Your task to perform on an android device: toggle javascript in the chrome app Image 0: 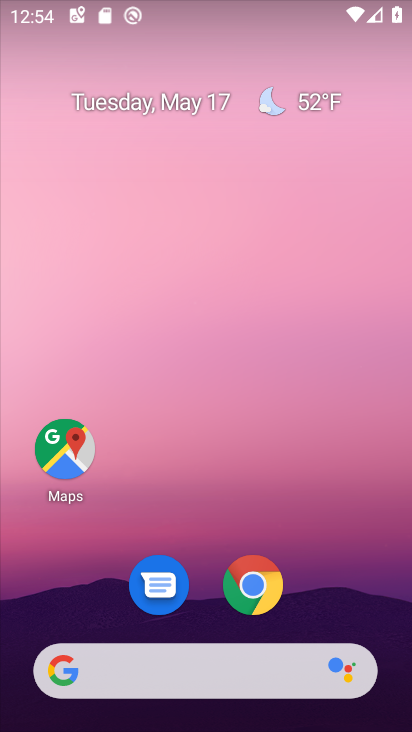
Step 0: click (256, 583)
Your task to perform on an android device: toggle javascript in the chrome app Image 1: 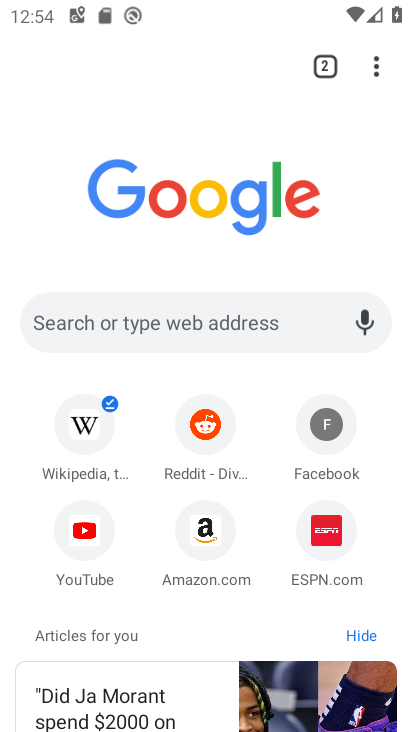
Step 1: click (374, 71)
Your task to perform on an android device: toggle javascript in the chrome app Image 2: 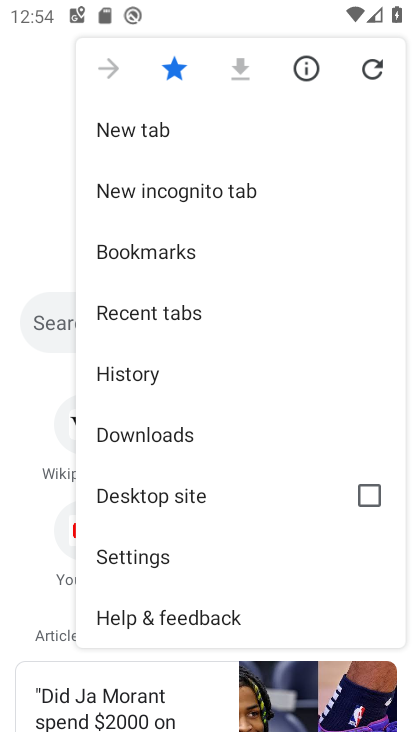
Step 2: click (174, 553)
Your task to perform on an android device: toggle javascript in the chrome app Image 3: 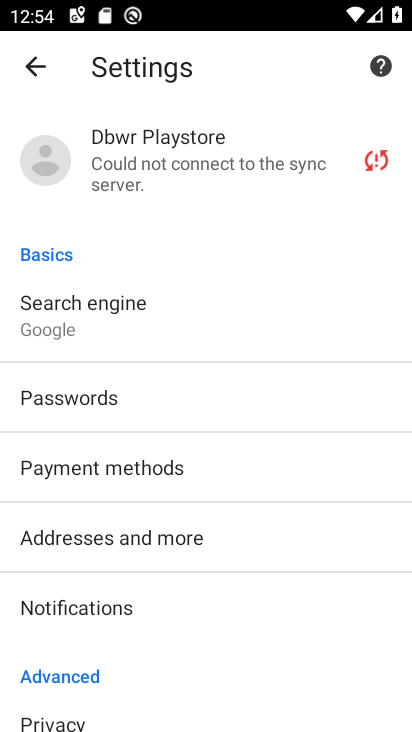
Step 3: drag from (222, 631) to (278, 302)
Your task to perform on an android device: toggle javascript in the chrome app Image 4: 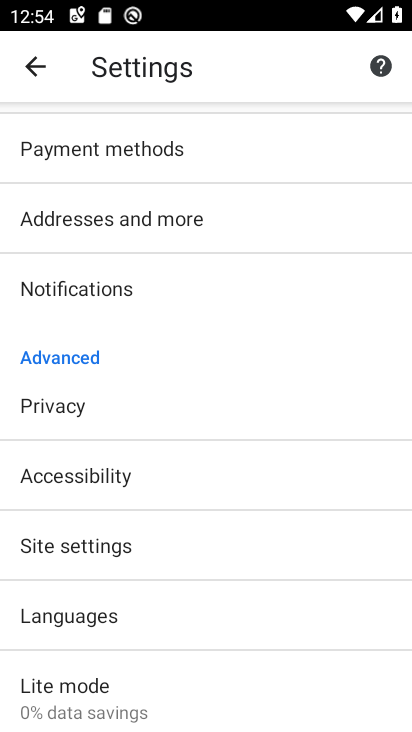
Step 4: click (193, 541)
Your task to perform on an android device: toggle javascript in the chrome app Image 5: 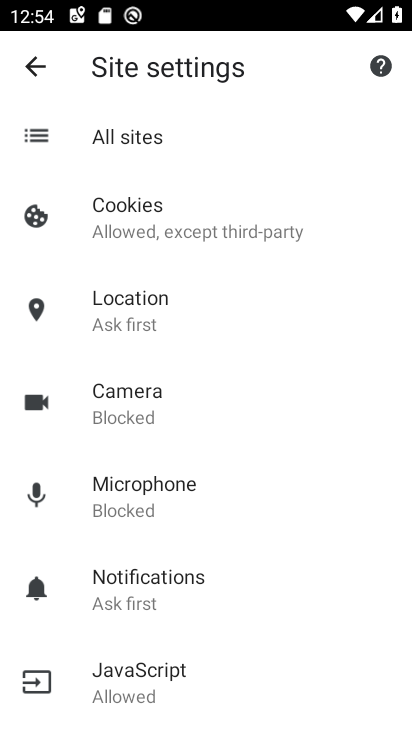
Step 5: click (187, 668)
Your task to perform on an android device: toggle javascript in the chrome app Image 6: 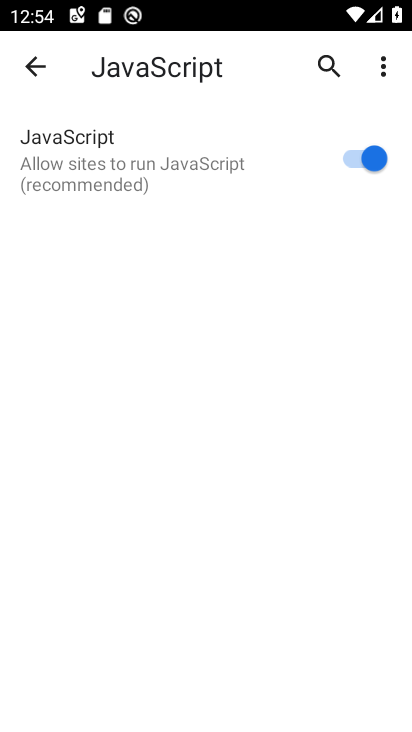
Step 6: click (367, 153)
Your task to perform on an android device: toggle javascript in the chrome app Image 7: 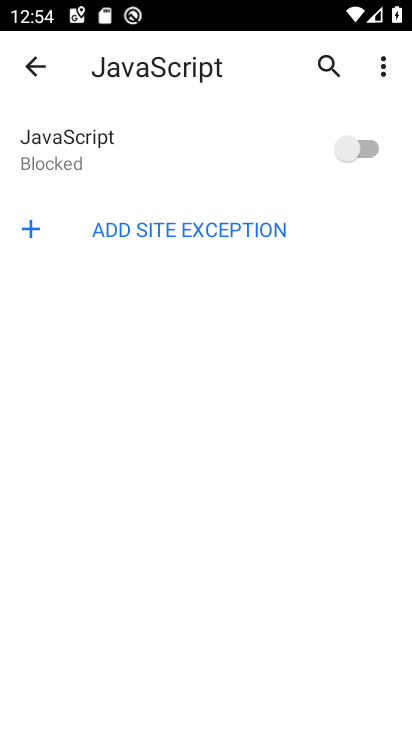
Step 7: task complete